Your task to perform on an android device: Show me popular games on the Play Store Image 0: 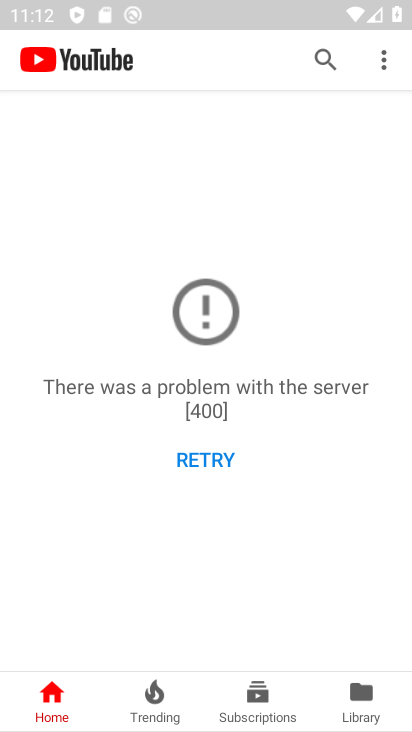
Step 0: press back button
Your task to perform on an android device: Show me popular games on the Play Store Image 1: 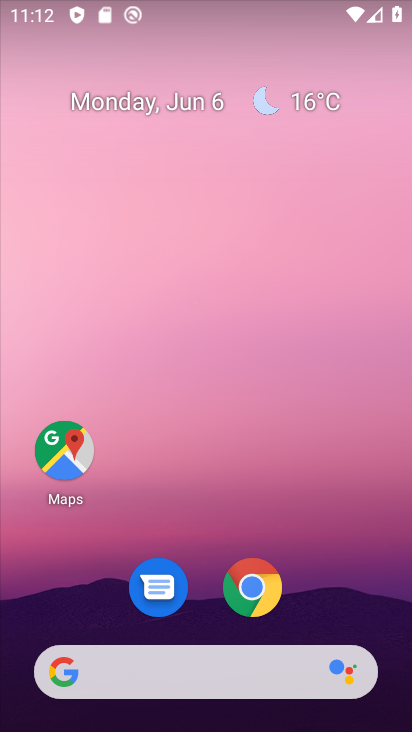
Step 1: drag from (339, 596) to (228, 26)
Your task to perform on an android device: Show me popular games on the Play Store Image 2: 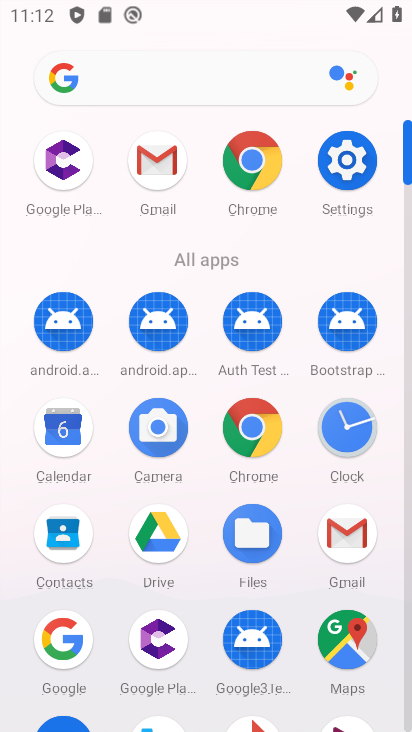
Step 2: drag from (10, 575) to (13, 228)
Your task to perform on an android device: Show me popular games on the Play Store Image 3: 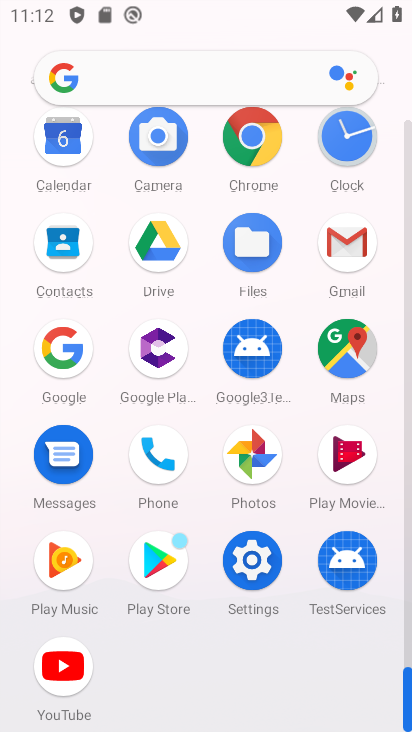
Step 3: click (157, 553)
Your task to perform on an android device: Show me popular games on the Play Store Image 4: 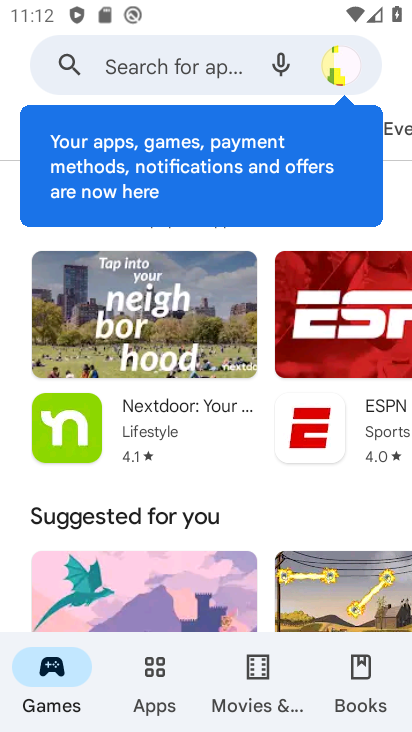
Step 4: task complete